Your task to perform on an android device: Check the news Image 0: 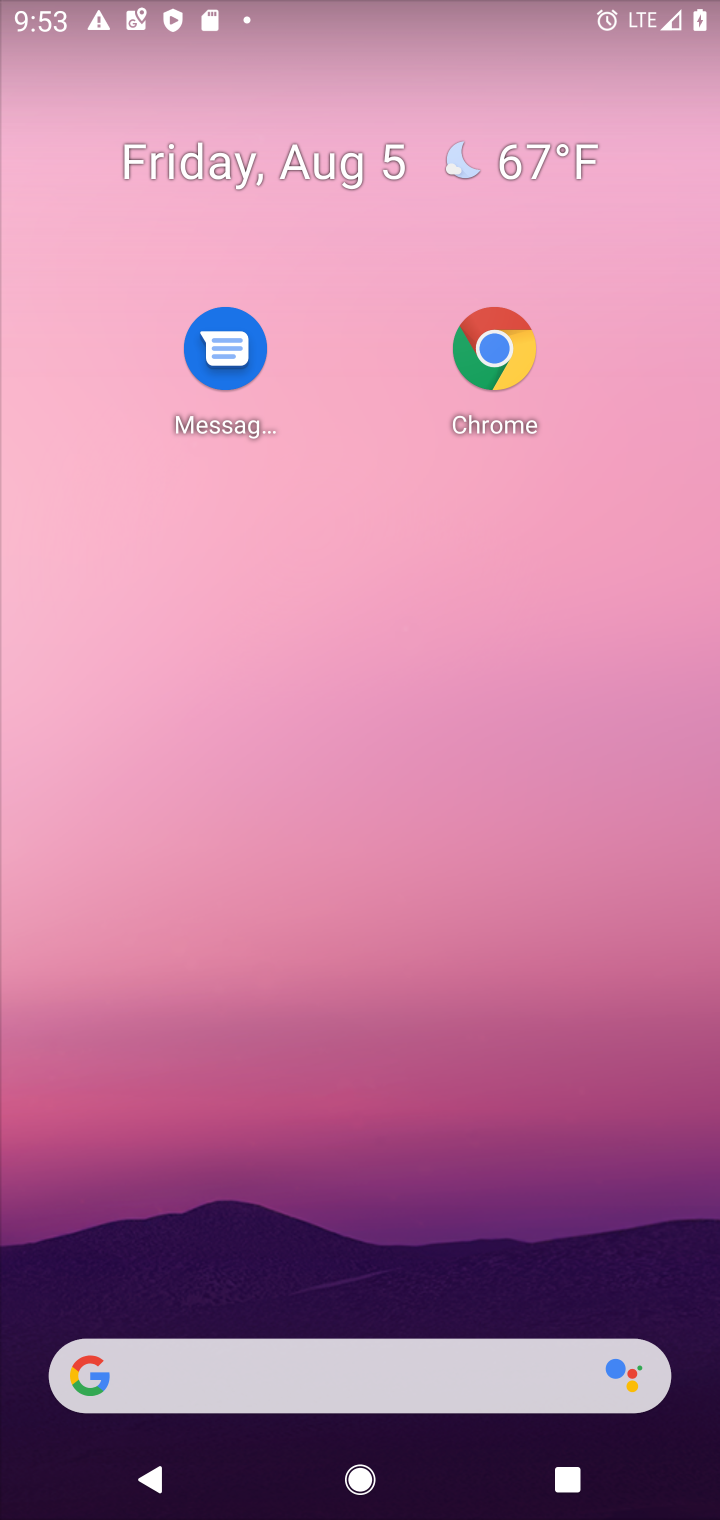
Step 0: press home button
Your task to perform on an android device: Check the news Image 1: 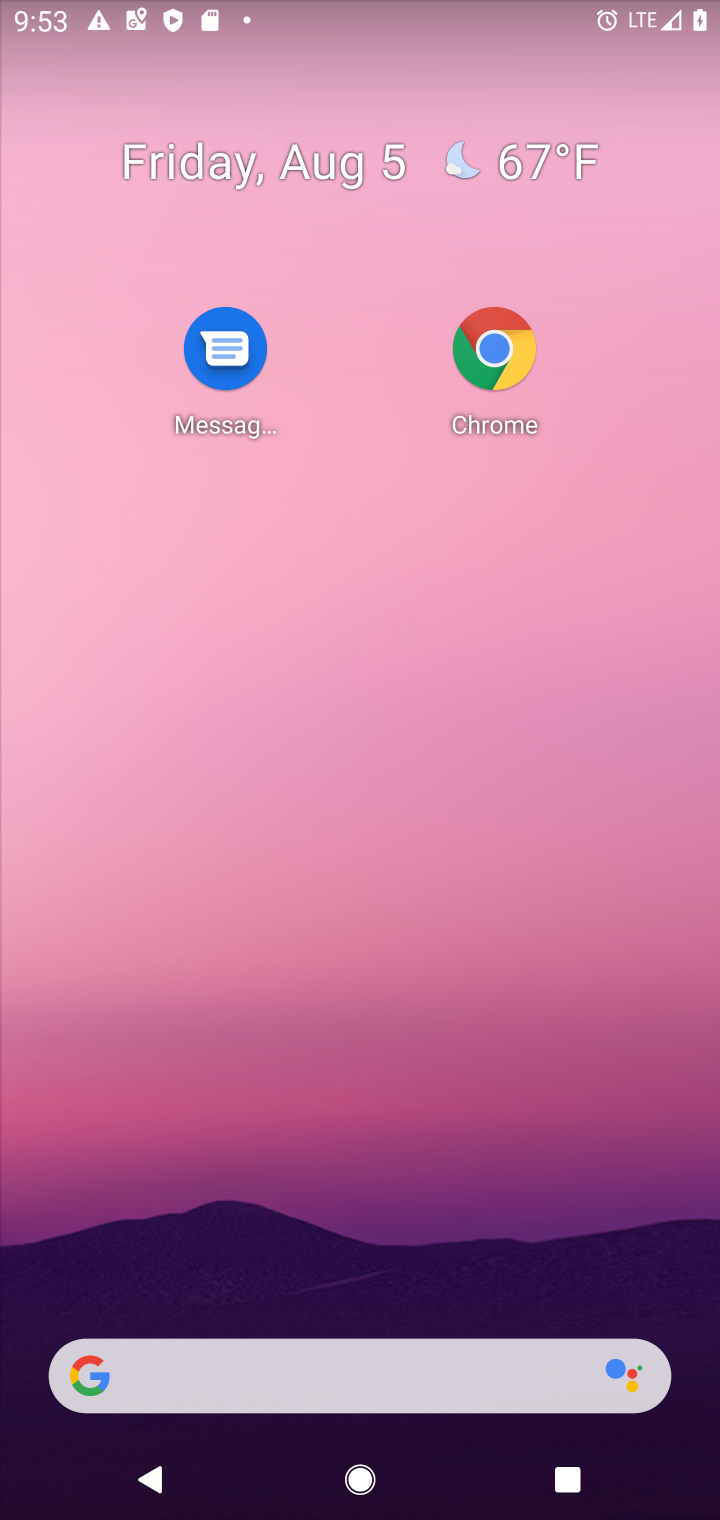
Step 1: drag from (468, 1421) to (410, 463)
Your task to perform on an android device: Check the news Image 2: 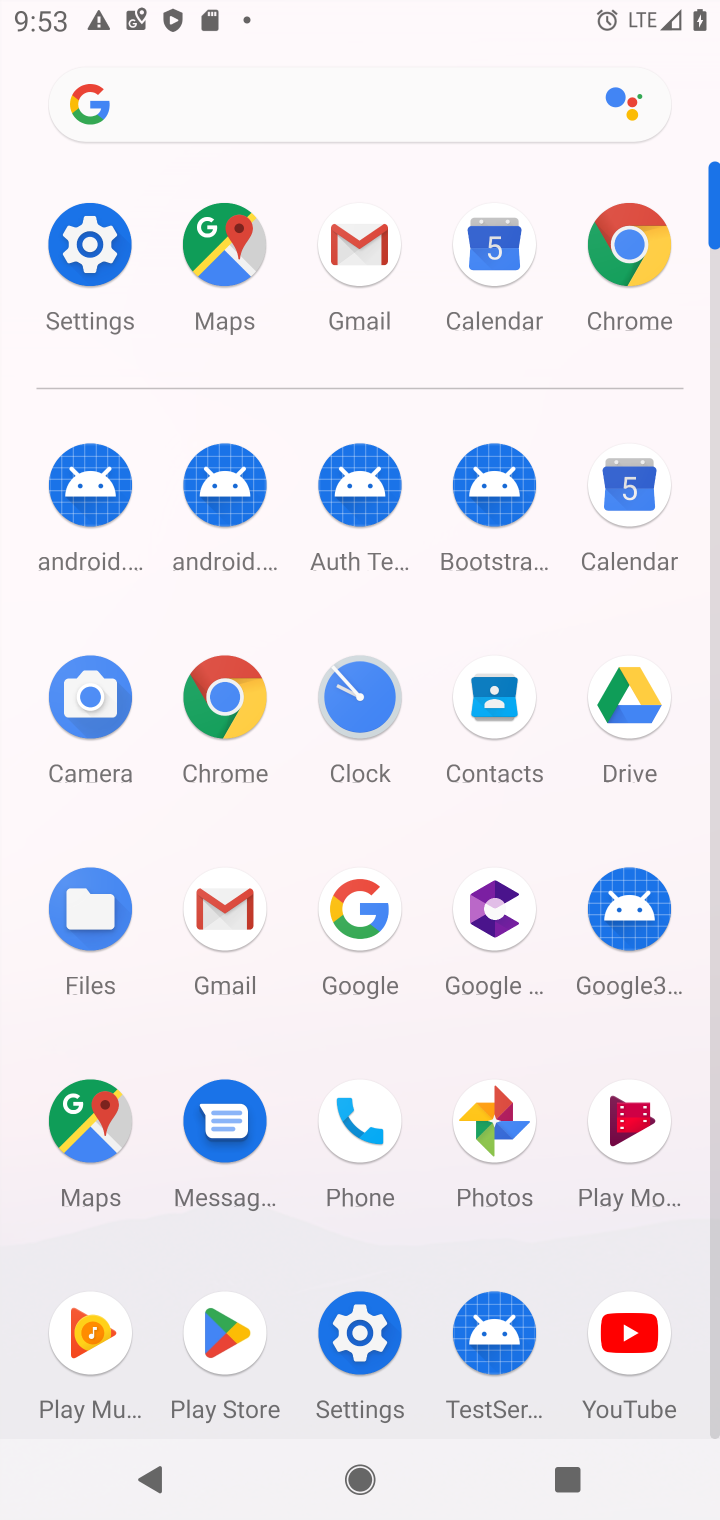
Step 2: click (256, 117)
Your task to perform on an android device: Check the news Image 3: 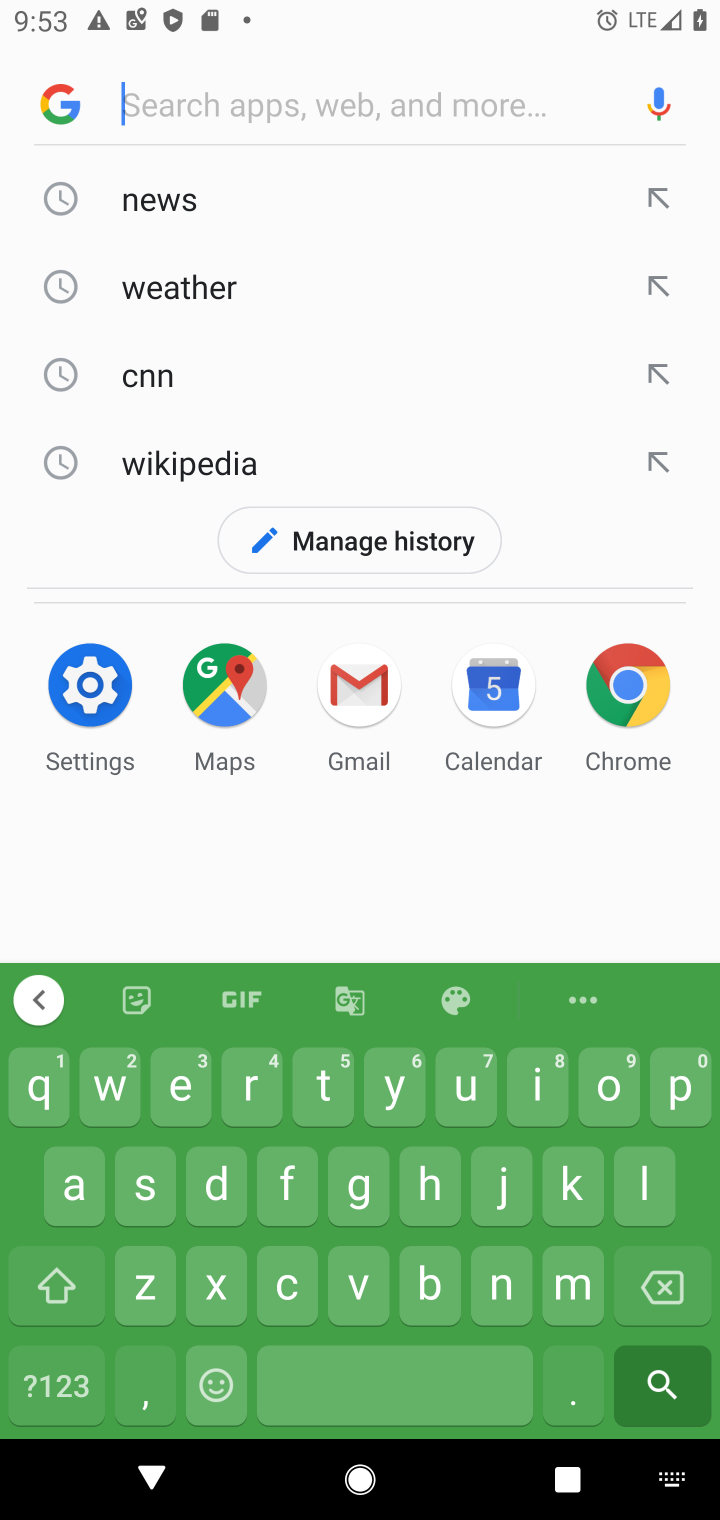
Step 3: click (167, 170)
Your task to perform on an android device: Check the news Image 4: 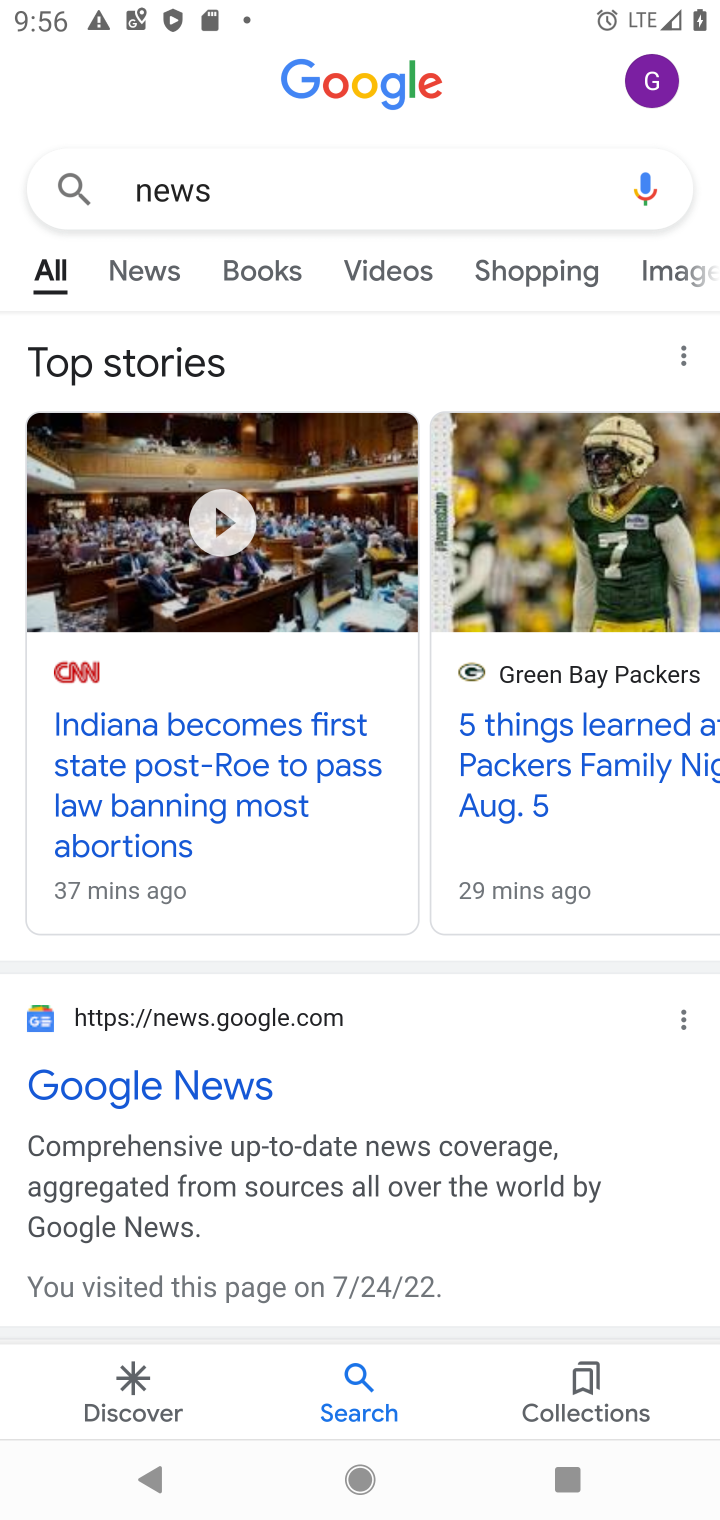
Step 4: task complete